Your task to perform on an android device: turn off translation in the chrome app Image 0: 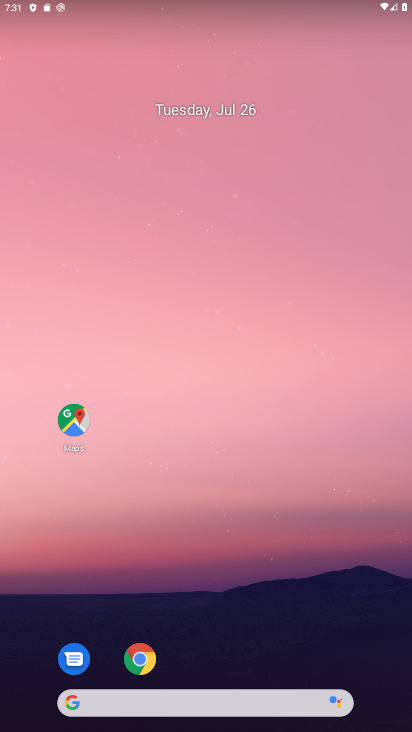
Step 0: drag from (225, 559) to (236, 221)
Your task to perform on an android device: turn off translation in the chrome app Image 1: 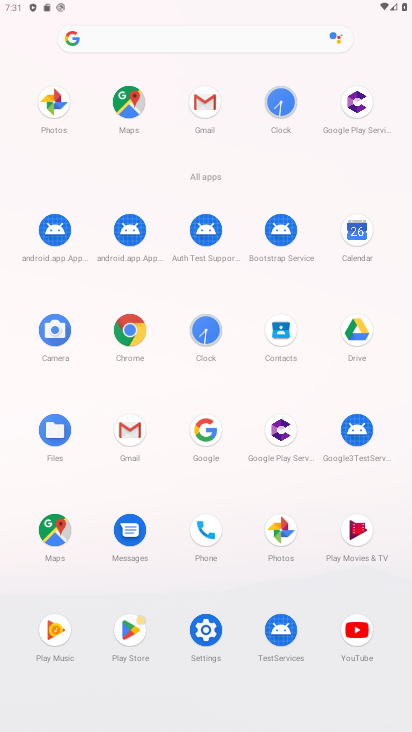
Step 1: click (128, 330)
Your task to perform on an android device: turn off translation in the chrome app Image 2: 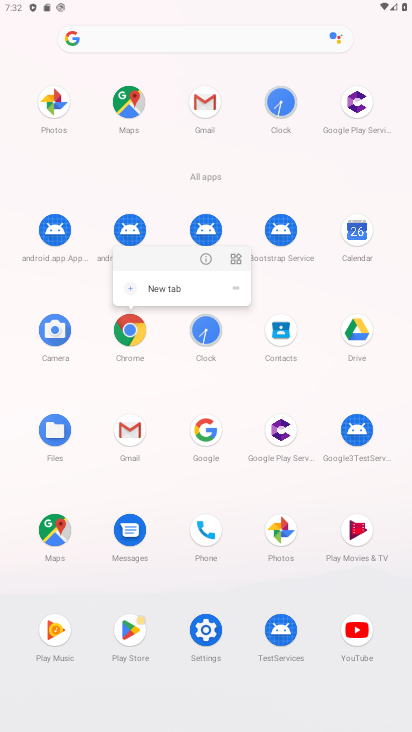
Step 2: drag from (231, 542) to (263, 254)
Your task to perform on an android device: turn off translation in the chrome app Image 3: 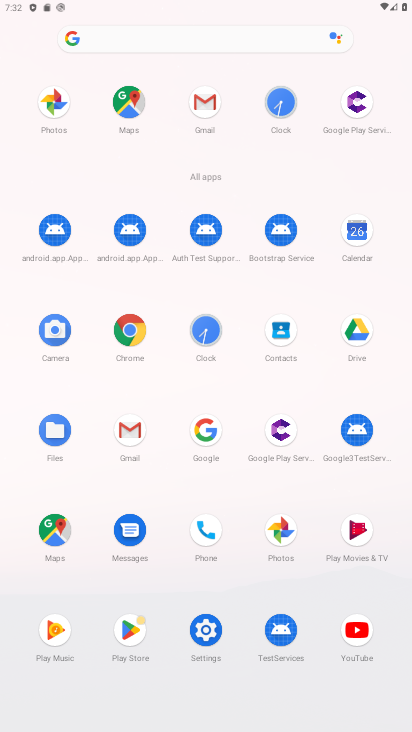
Step 3: click (128, 332)
Your task to perform on an android device: turn off translation in the chrome app Image 4: 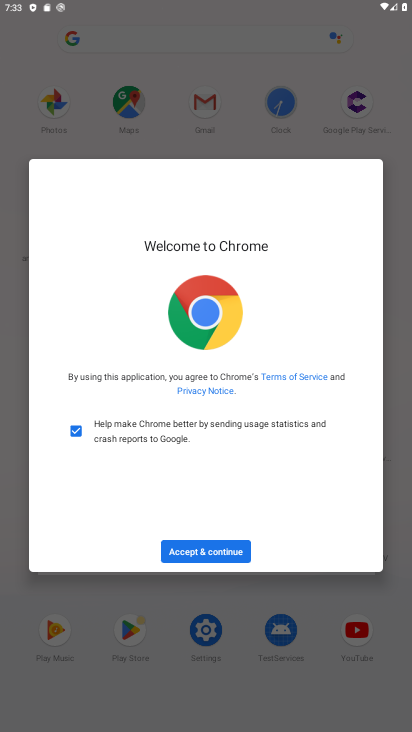
Step 4: click (185, 557)
Your task to perform on an android device: turn off translation in the chrome app Image 5: 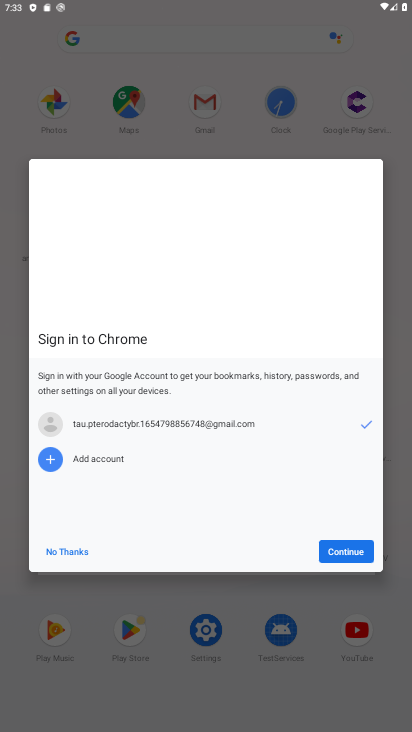
Step 5: click (339, 548)
Your task to perform on an android device: turn off translation in the chrome app Image 6: 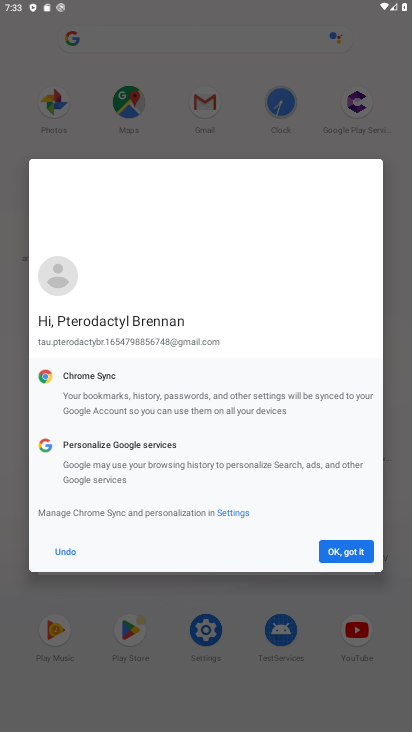
Step 6: click (338, 543)
Your task to perform on an android device: turn off translation in the chrome app Image 7: 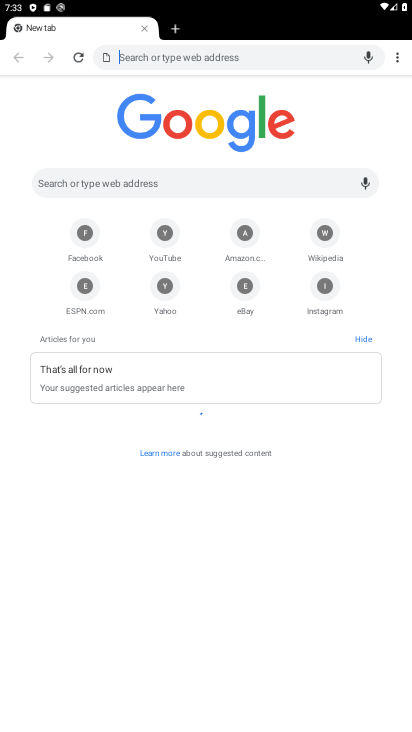
Step 7: drag from (399, 57) to (305, 260)
Your task to perform on an android device: turn off translation in the chrome app Image 8: 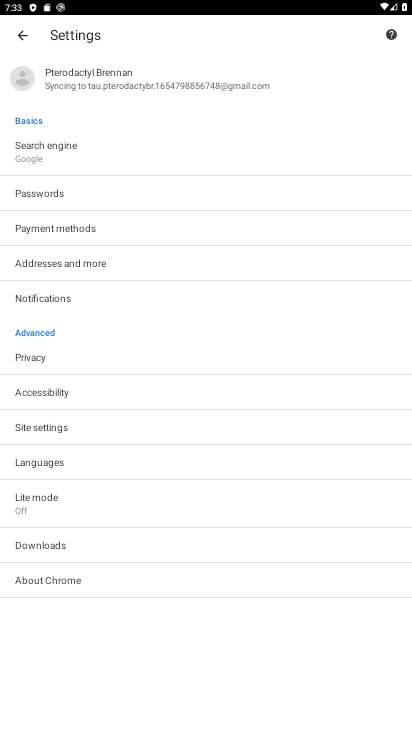
Step 8: click (72, 465)
Your task to perform on an android device: turn off translation in the chrome app Image 9: 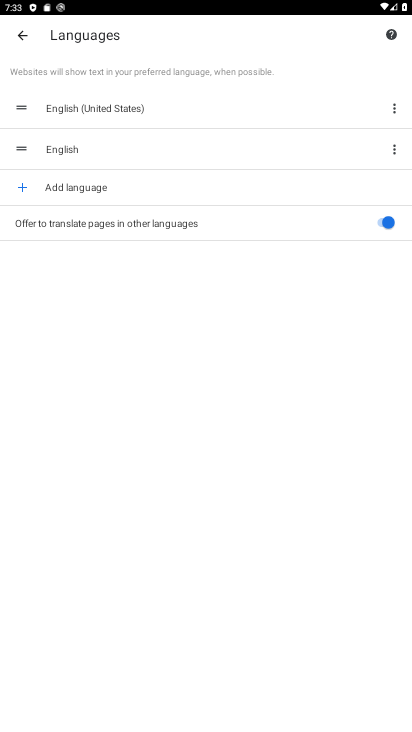
Step 9: click (391, 215)
Your task to perform on an android device: turn off translation in the chrome app Image 10: 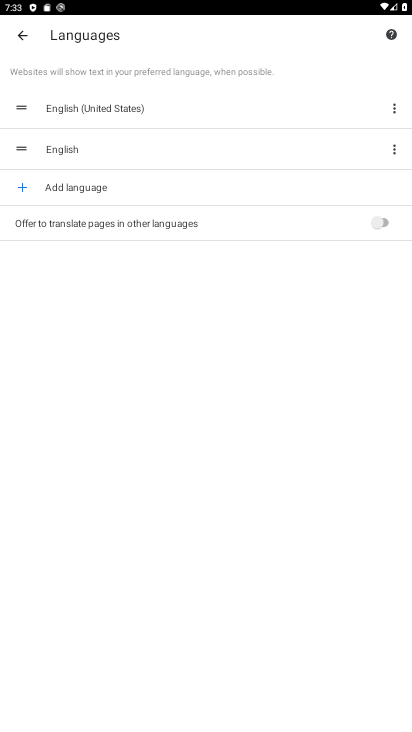
Step 10: task complete